Your task to perform on an android device: turn on wifi Image 0: 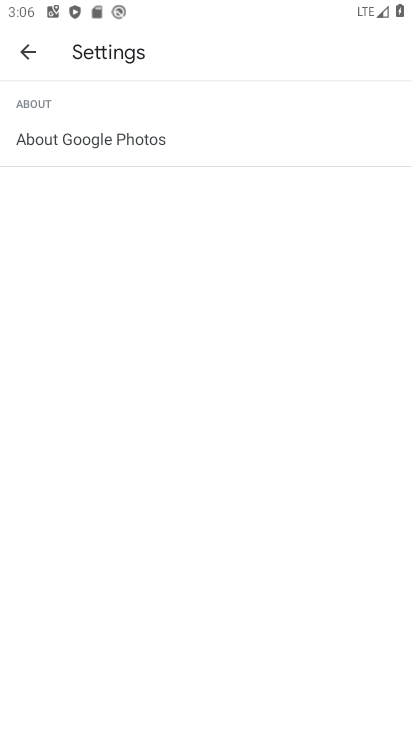
Step 0: press home button
Your task to perform on an android device: turn on wifi Image 1: 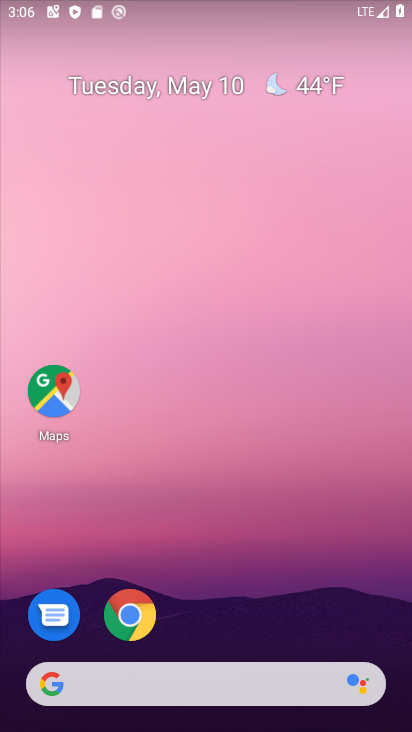
Step 1: drag from (168, 4) to (0, 536)
Your task to perform on an android device: turn on wifi Image 2: 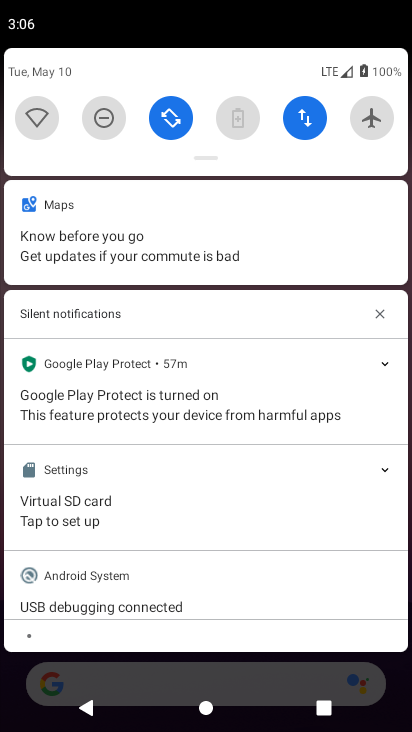
Step 2: click (39, 112)
Your task to perform on an android device: turn on wifi Image 3: 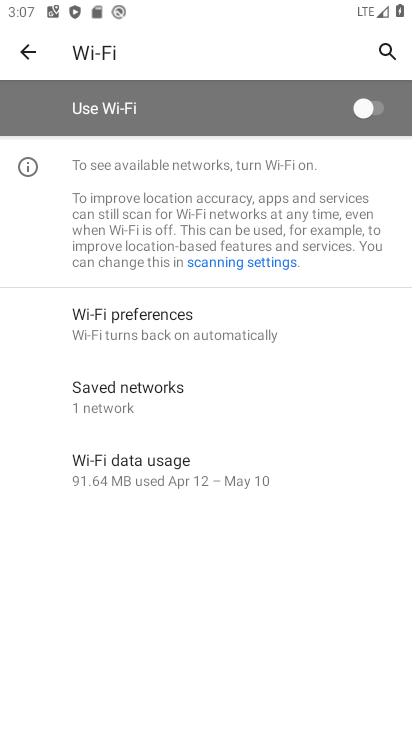
Step 3: task complete